Your task to perform on an android device: set default search engine in the chrome app Image 0: 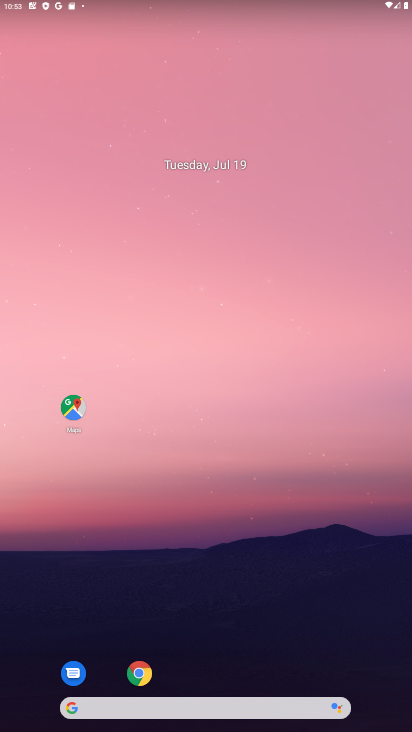
Step 0: click (140, 675)
Your task to perform on an android device: set default search engine in the chrome app Image 1: 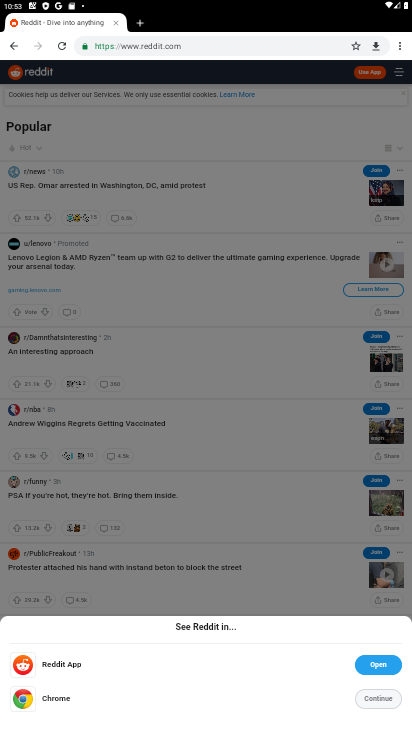
Step 1: click (397, 49)
Your task to perform on an android device: set default search engine in the chrome app Image 2: 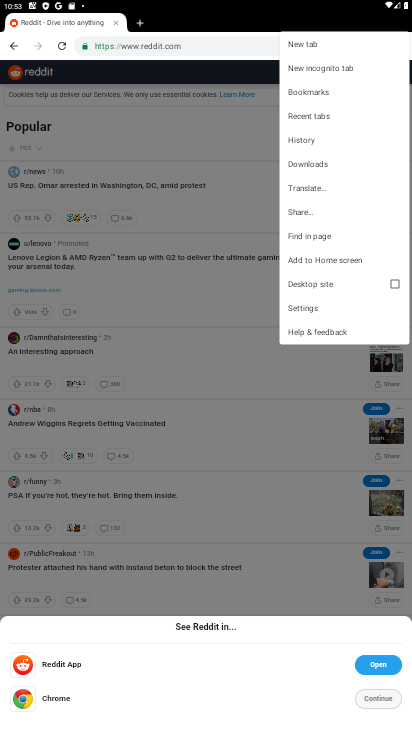
Step 2: click (303, 307)
Your task to perform on an android device: set default search engine in the chrome app Image 3: 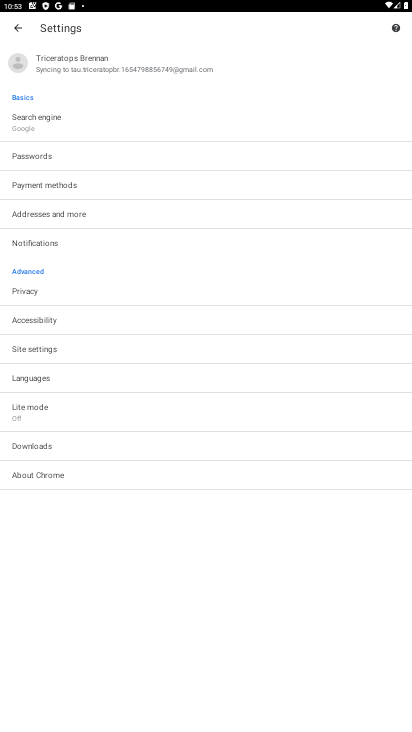
Step 3: click (28, 115)
Your task to perform on an android device: set default search engine in the chrome app Image 4: 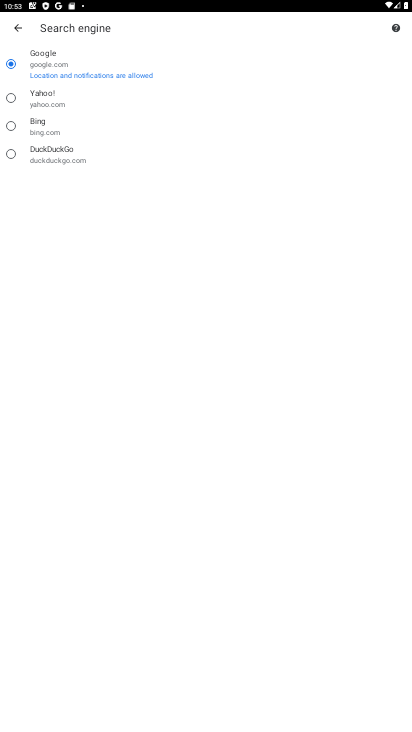
Step 4: click (9, 101)
Your task to perform on an android device: set default search engine in the chrome app Image 5: 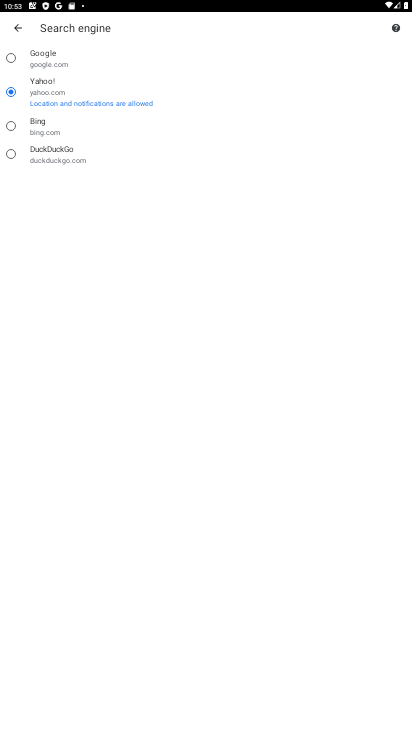
Step 5: task complete